Your task to perform on an android device: Go to notification settings Image 0: 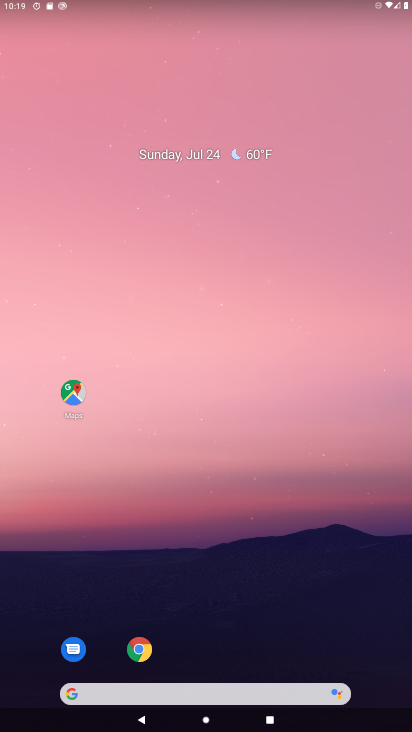
Step 0: drag from (258, 584) to (242, 52)
Your task to perform on an android device: Go to notification settings Image 1: 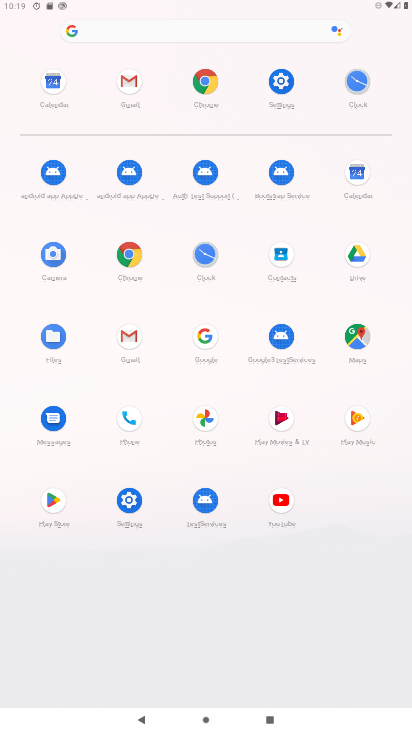
Step 1: click (285, 77)
Your task to perform on an android device: Go to notification settings Image 2: 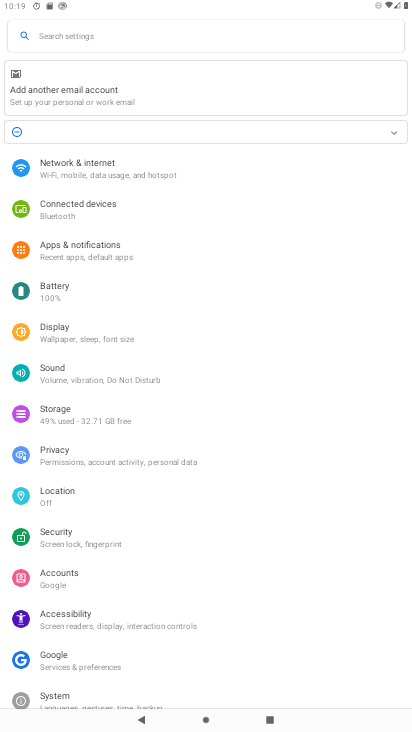
Step 2: click (90, 252)
Your task to perform on an android device: Go to notification settings Image 3: 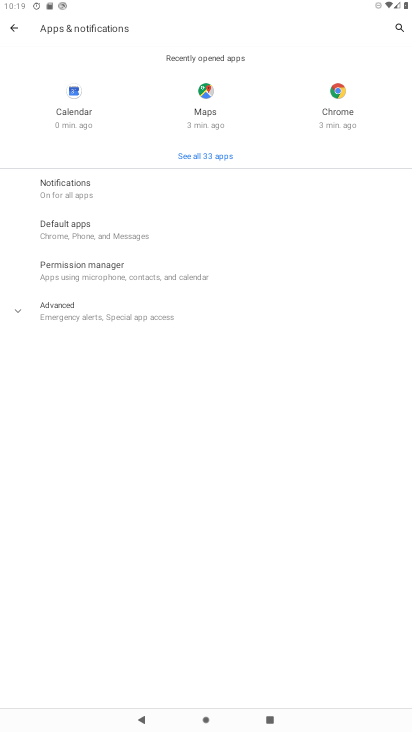
Step 3: click (64, 197)
Your task to perform on an android device: Go to notification settings Image 4: 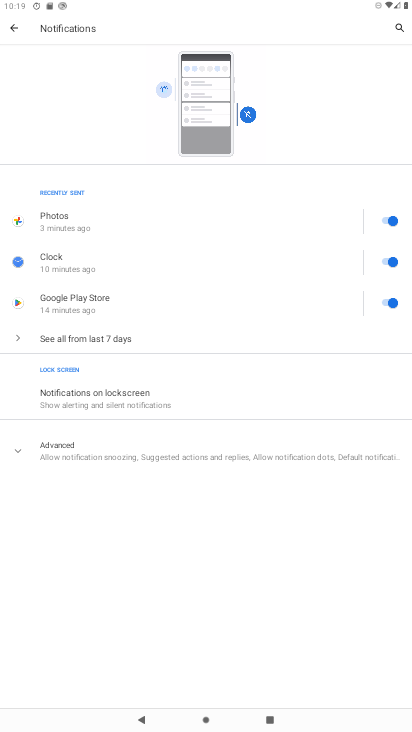
Step 4: task complete